Your task to perform on an android device: Open Chrome and go to settings Image 0: 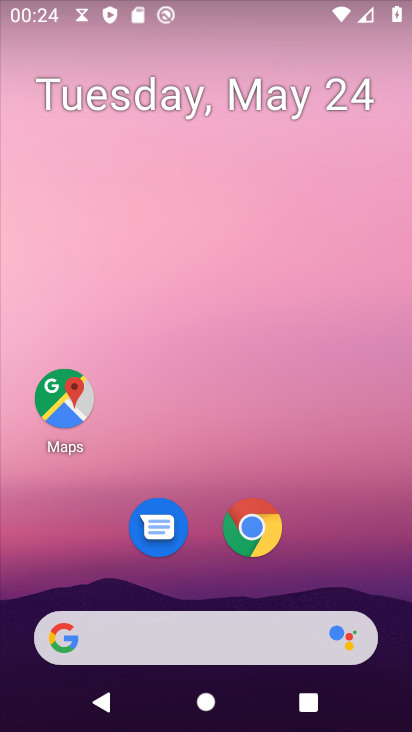
Step 0: press home button
Your task to perform on an android device: Open Chrome and go to settings Image 1: 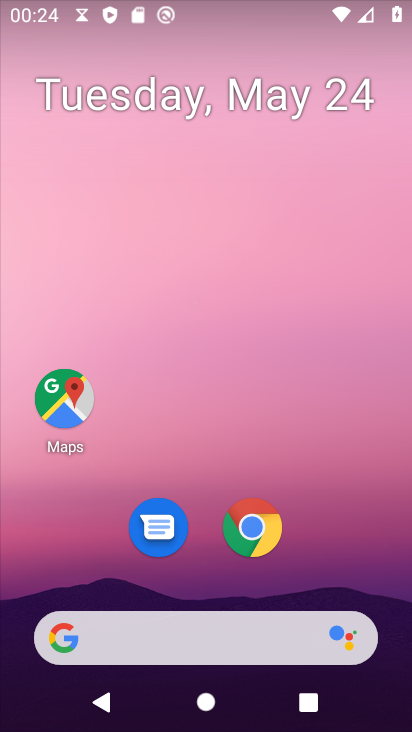
Step 1: click (255, 534)
Your task to perform on an android device: Open Chrome and go to settings Image 2: 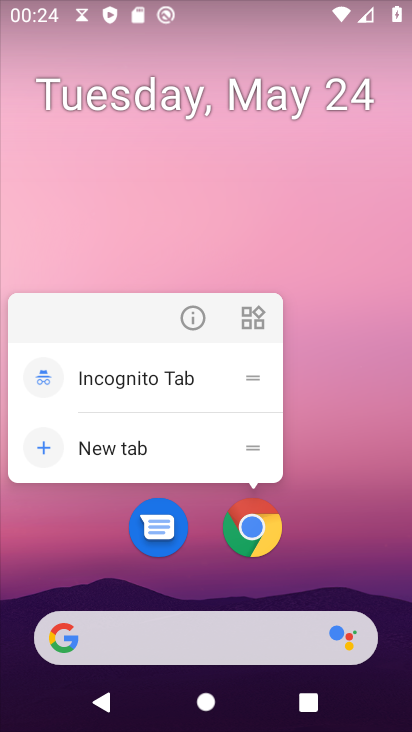
Step 2: click (255, 534)
Your task to perform on an android device: Open Chrome and go to settings Image 3: 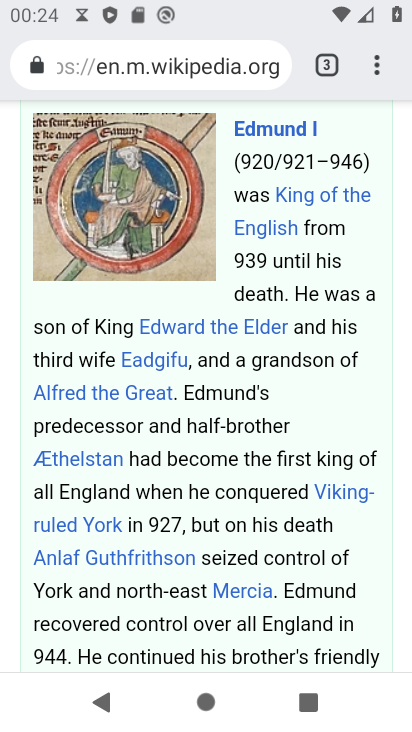
Step 3: task complete